Your task to perform on an android device: Open the calendar and show me this week's events? Image 0: 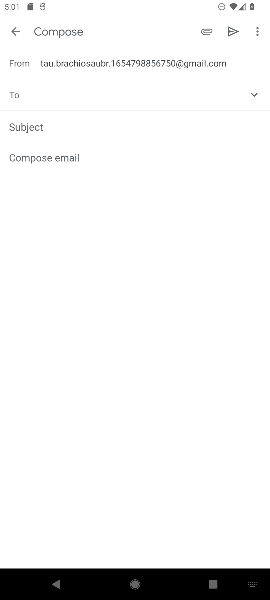
Step 0: press home button
Your task to perform on an android device: Open the calendar and show me this week's events? Image 1: 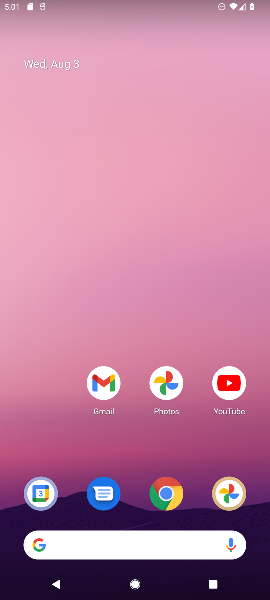
Step 1: drag from (57, 455) to (54, 191)
Your task to perform on an android device: Open the calendar and show me this week's events? Image 2: 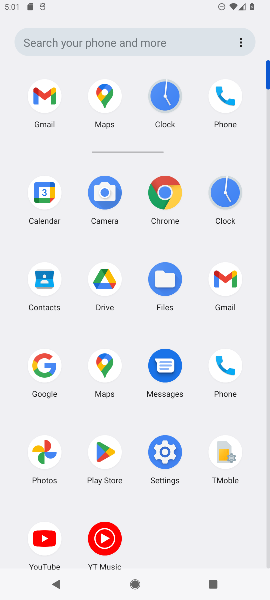
Step 2: click (46, 206)
Your task to perform on an android device: Open the calendar and show me this week's events? Image 3: 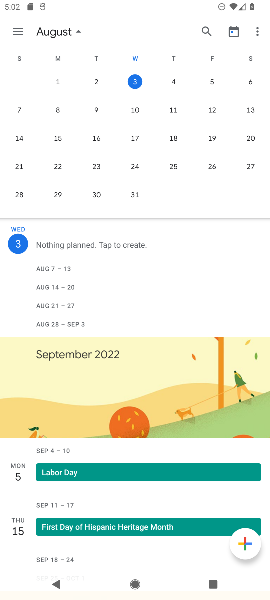
Step 3: task complete